Your task to perform on an android device: delete the emails in spam in the gmail app Image 0: 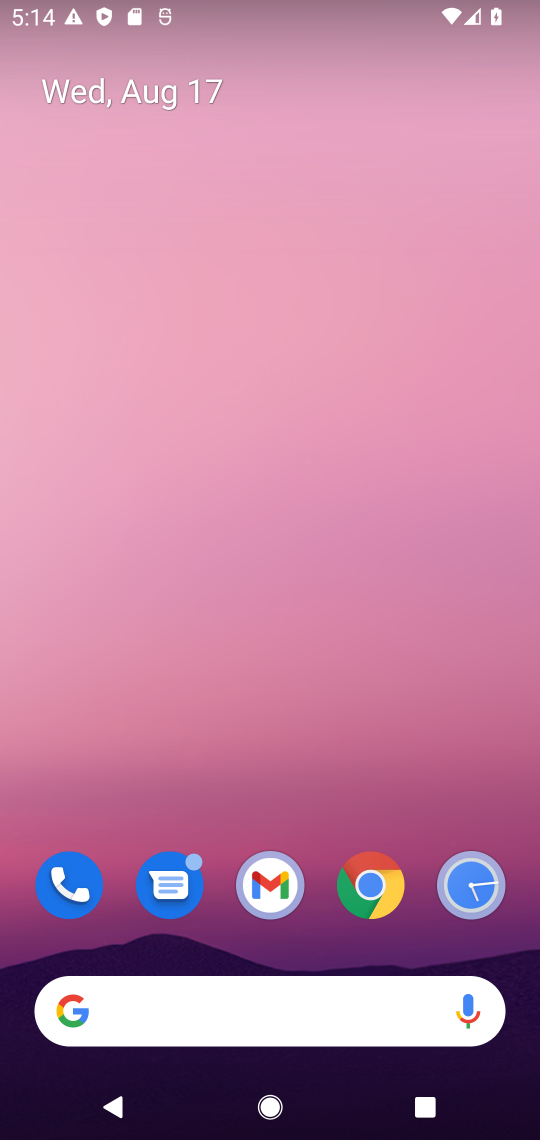
Step 0: drag from (230, 806) to (472, 153)
Your task to perform on an android device: delete the emails in spam in the gmail app Image 1: 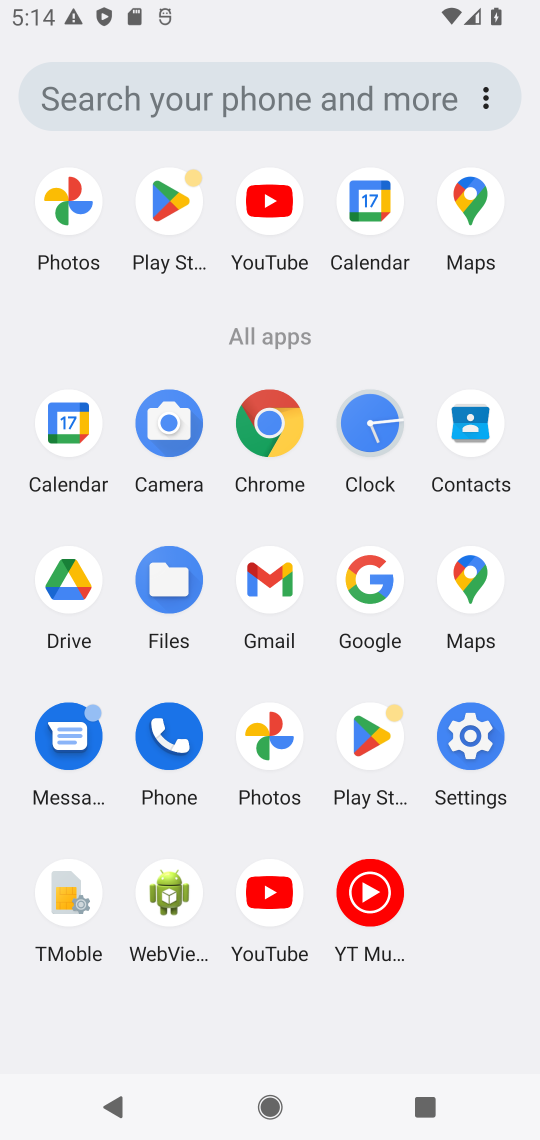
Step 1: click (261, 577)
Your task to perform on an android device: delete the emails in spam in the gmail app Image 2: 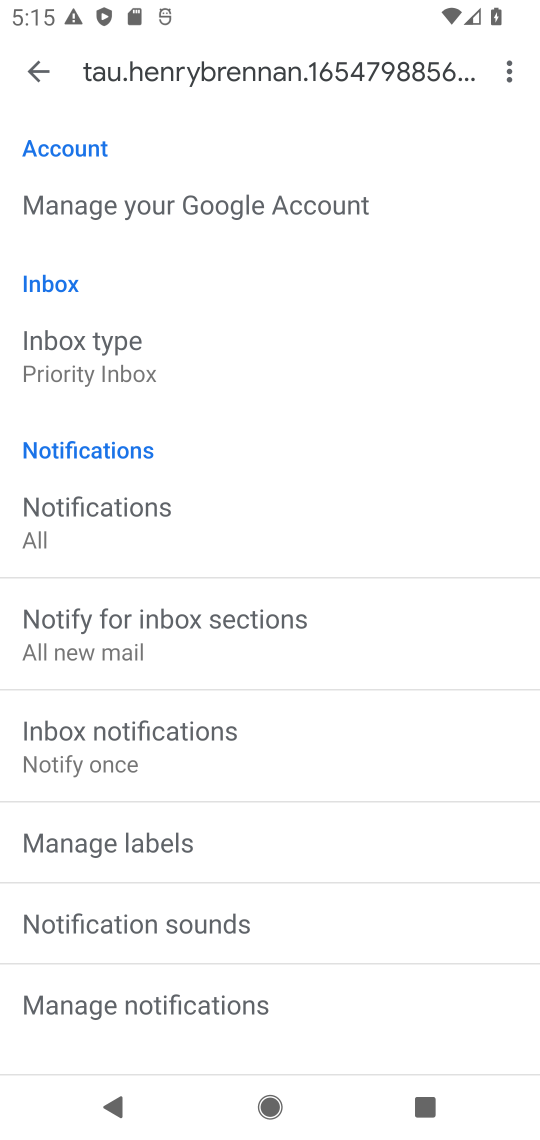
Step 2: press back button
Your task to perform on an android device: delete the emails in spam in the gmail app Image 3: 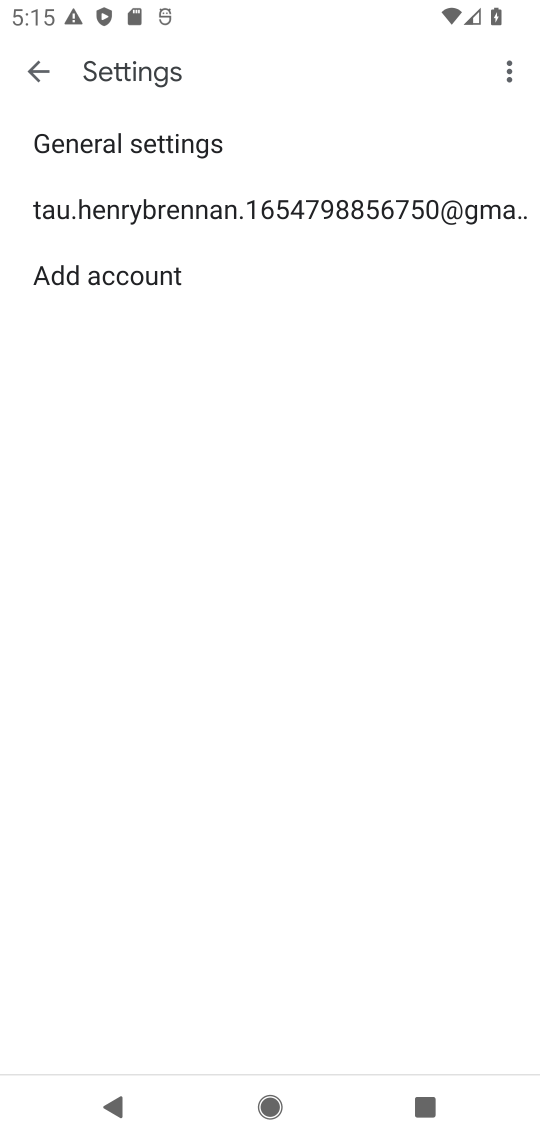
Step 3: press back button
Your task to perform on an android device: delete the emails in spam in the gmail app Image 4: 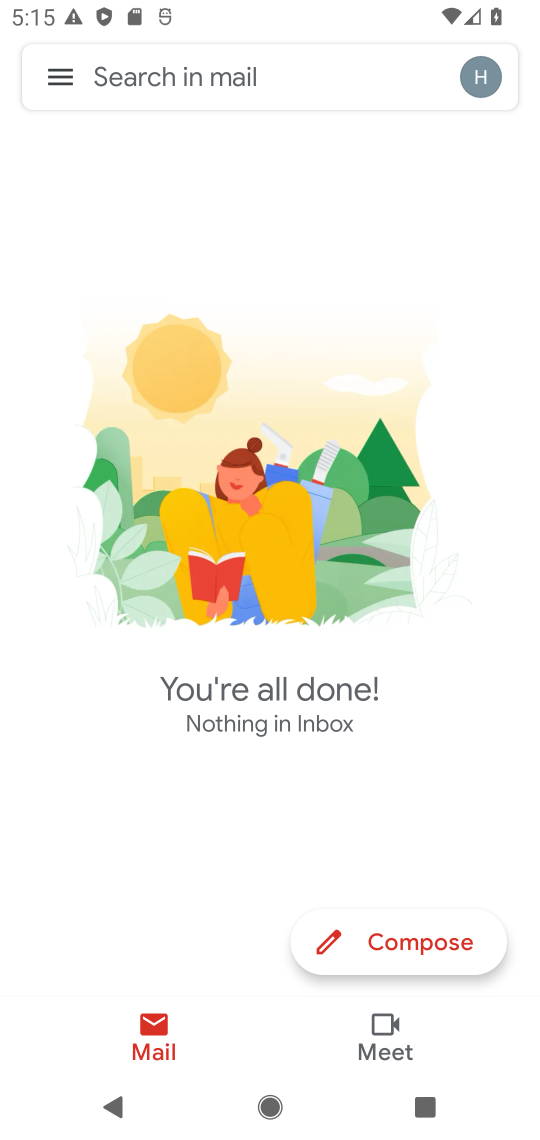
Step 4: click (61, 70)
Your task to perform on an android device: delete the emails in spam in the gmail app Image 5: 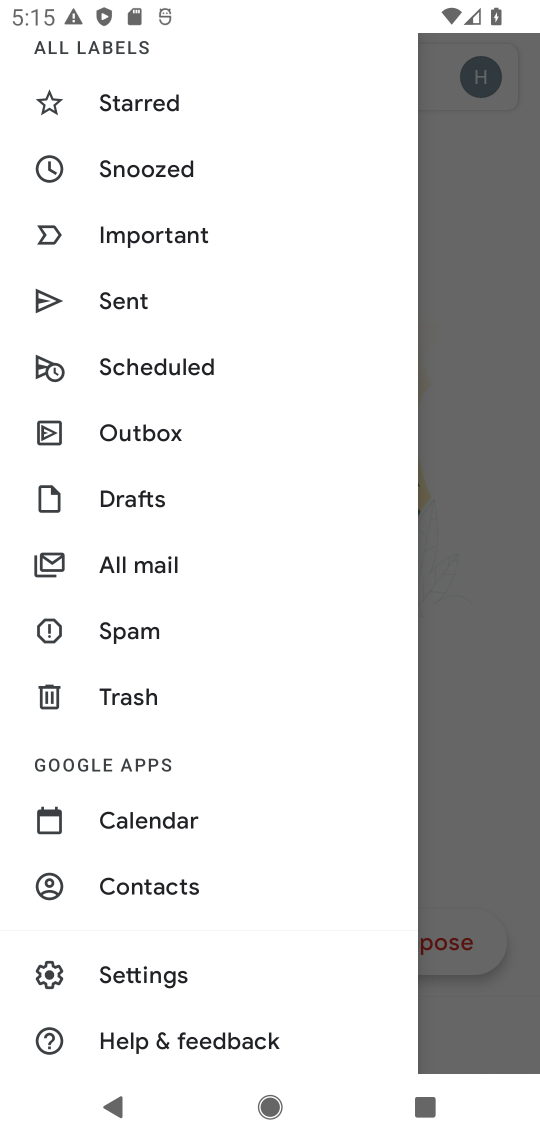
Step 5: click (121, 568)
Your task to perform on an android device: delete the emails in spam in the gmail app Image 6: 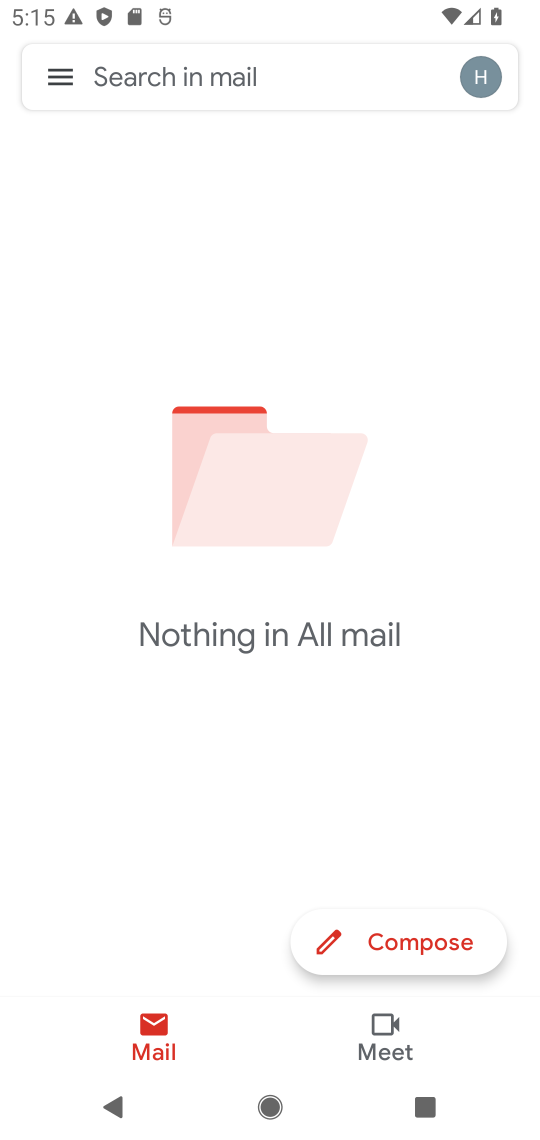
Step 6: click (48, 79)
Your task to perform on an android device: delete the emails in spam in the gmail app Image 7: 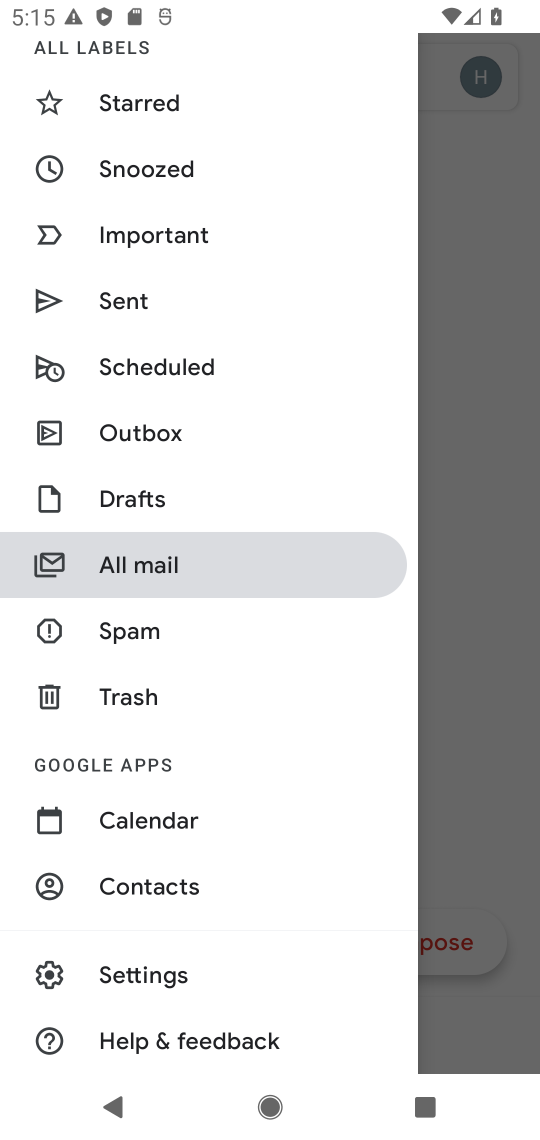
Step 7: click (133, 617)
Your task to perform on an android device: delete the emails in spam in the gmail app Image 8: 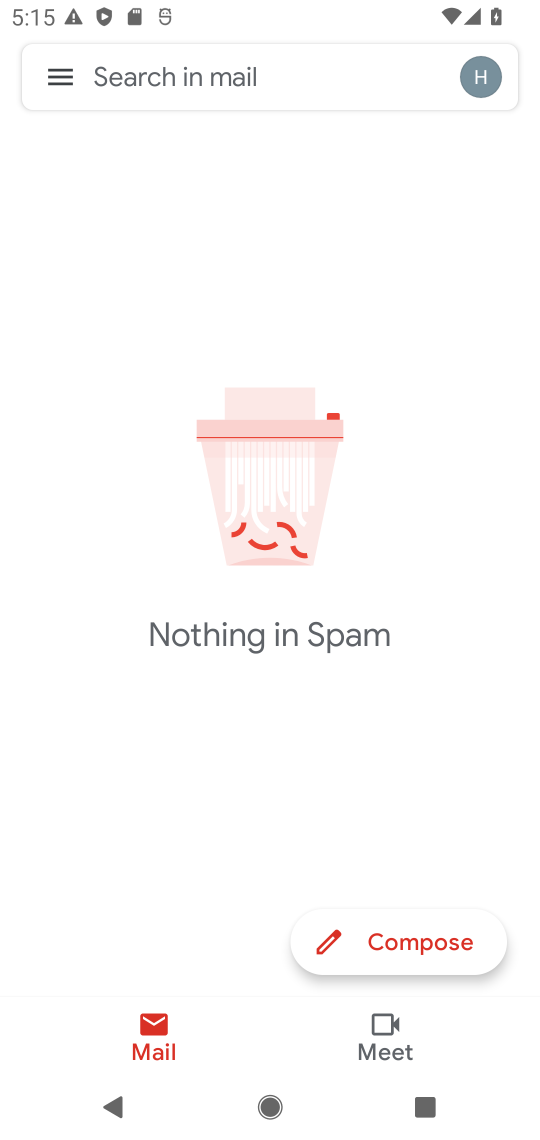
Step 8: task complete